Your task to perform on an android device: Go to privacy settings Image 0: 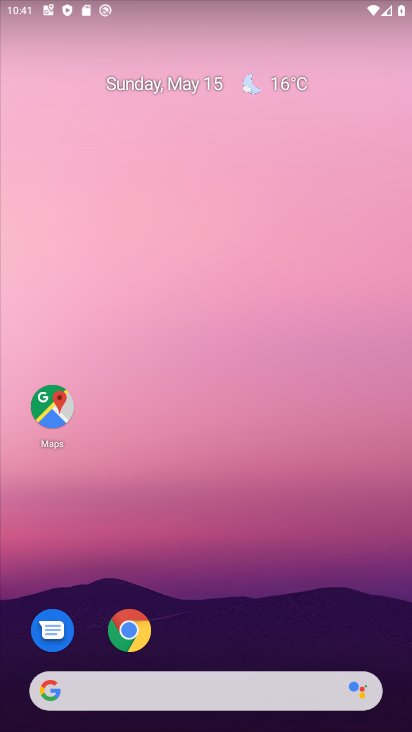
Step 0: drag from (210, 645) to (211, 166)
Your task to perform on an android device: Go to privacy settings Image 1: 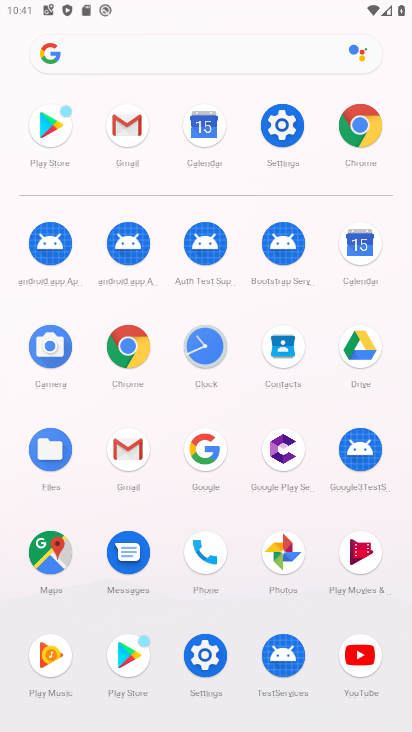
Step 1: click (266, 133)
Your task to perform on an android device: Go to privacy settings Image 2: 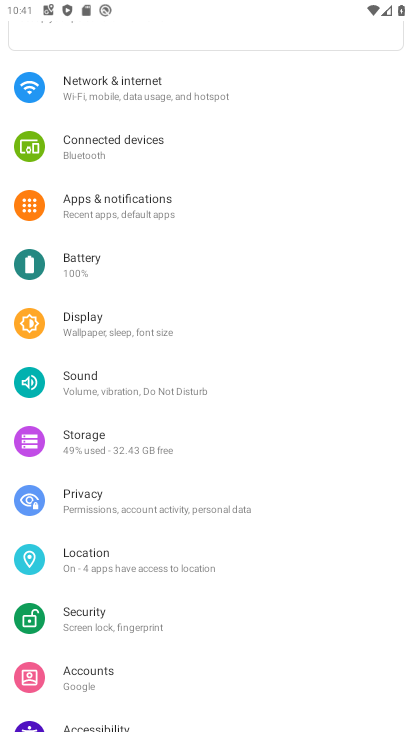
Step 2: click (100, 494)
Your task to perform on an android device: Go to privacy settings Image 3: 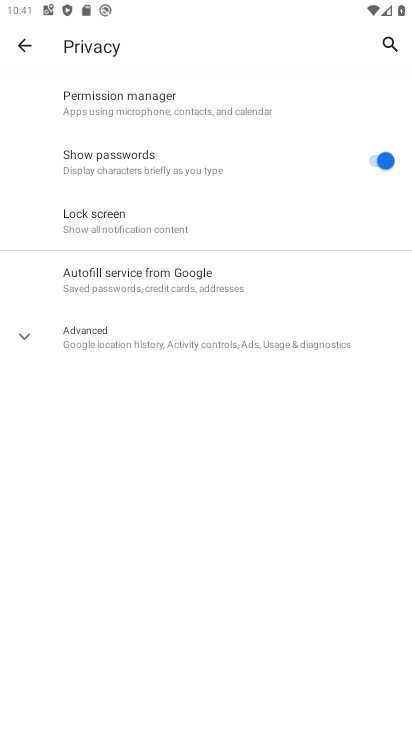
Step 3: task complete